Your task to perform on an android device: What's the weather going to be tomorrow? Image 0: 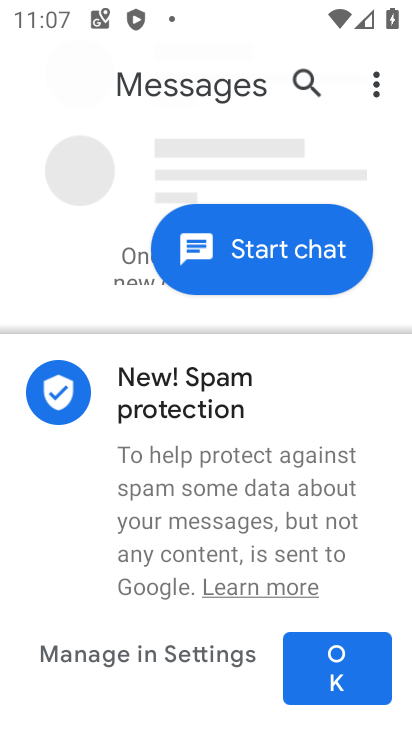
Step 0: press home button
Your task to perform on an android device: What's the weather going to be tomorrow? Image 1: 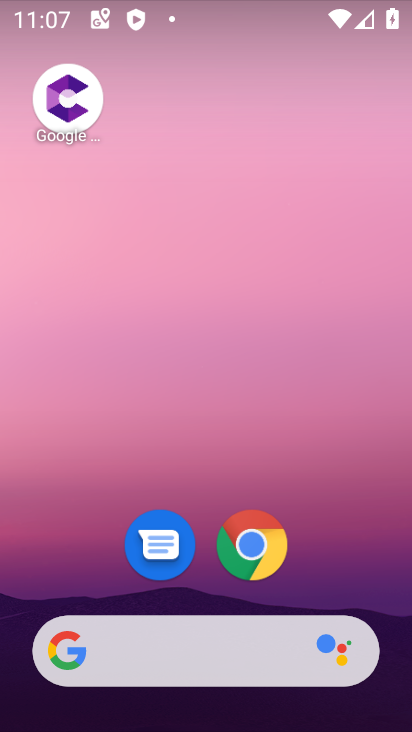
Step 1: drag from (262, 250) to (249, 162)
Your task to perform on an android device: What's the weather going to be tomorrow? Image 2: 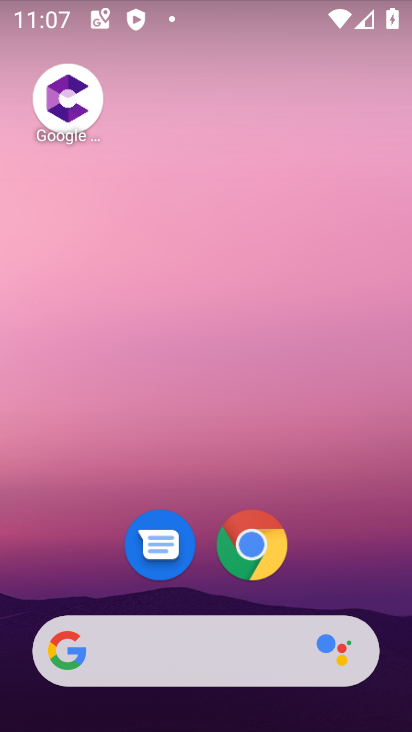
Step 2: click (264, 11)
Your task to perform on an android device: What's the weather going to be tomorrow? Image 3: 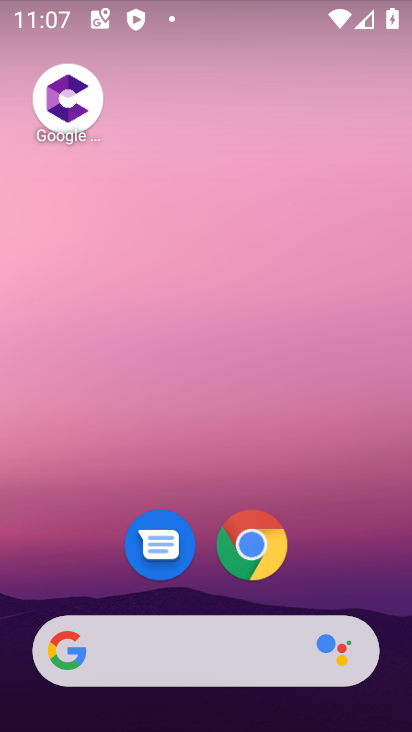
Step 3: drag from (325, 561) to (286, 232)
Your task to perform on an android device: What's the weather going to be tomorrow? Image 4: 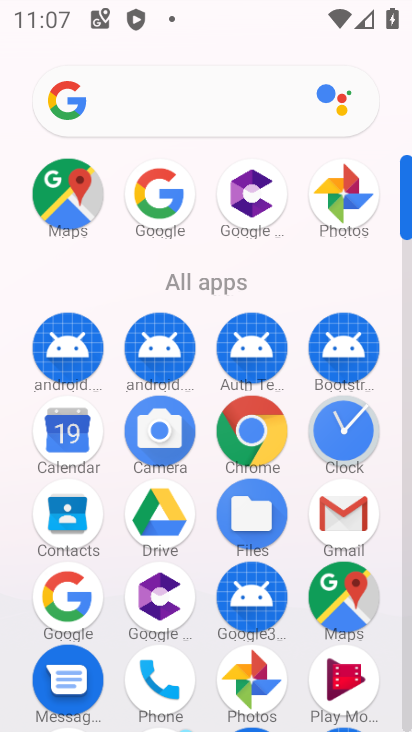
Step 4: click (64, 210)
Your task to perform on an android device: What's the weather going to be tomorrow? Image 5: 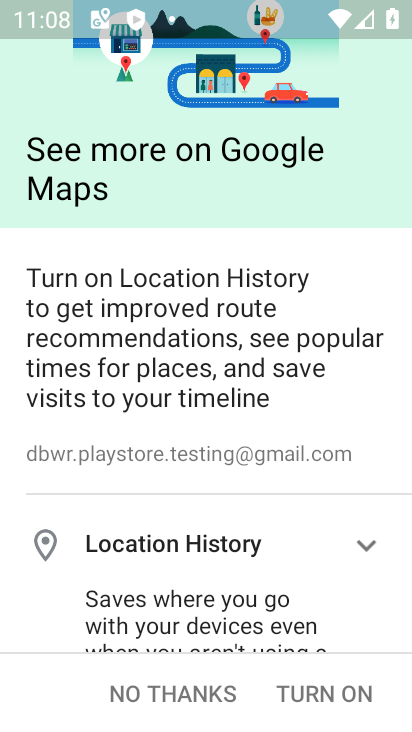
Step 5: click (202, 694)
Your task to perform on an android device: What's the weather going to be tomorrow? Image 6: 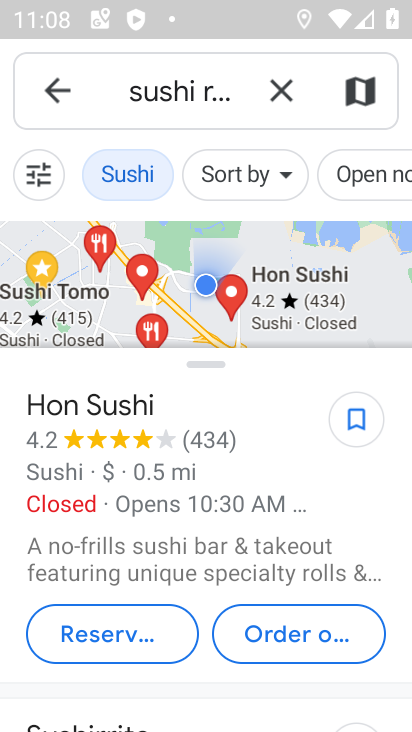
Step 6: press home button
Your task to perform on an android device: What's the weather going to be tomorrow? Image 7: 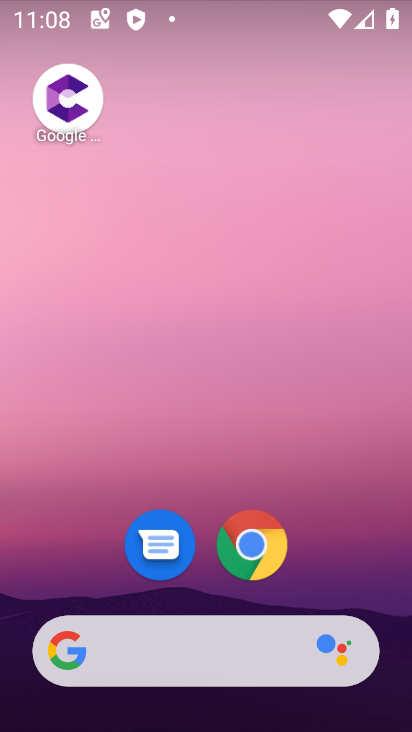
Step 7: drag from (281, 350) to (171, 48)
Your task to perform on an android device: What's the weather going to be tomorrow? Image 8: 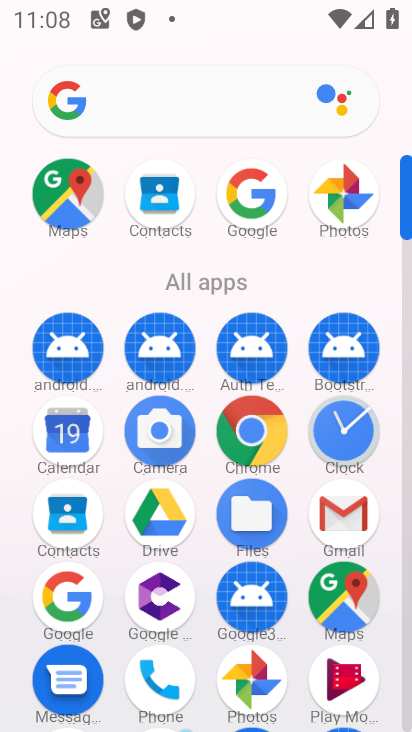
Step 8: click (249, 210)
Your task to perform on an android device: What's the weather going to be tomorrow? Image 9: 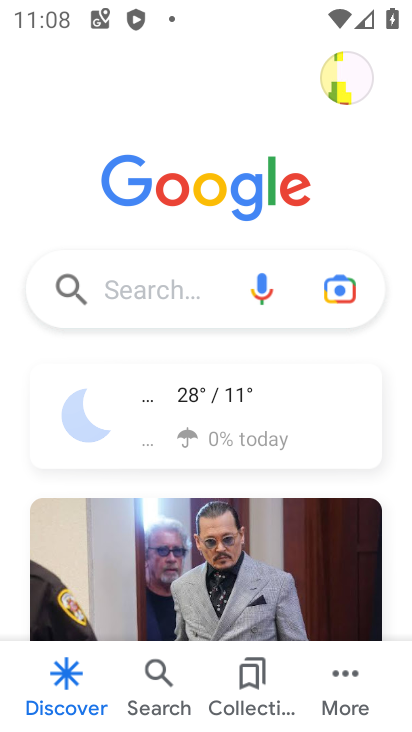
Step 9: click (166, 299)
Your task to perform on an android device: What's the weather going to be tomorrow? Image 10: 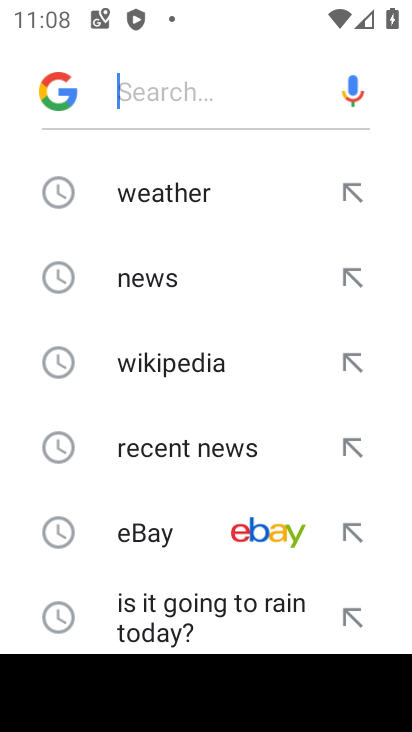
Step 10: click (177, 195)
Your task to perform on an android device: What's the weather going to be tomorrow? Image 11: 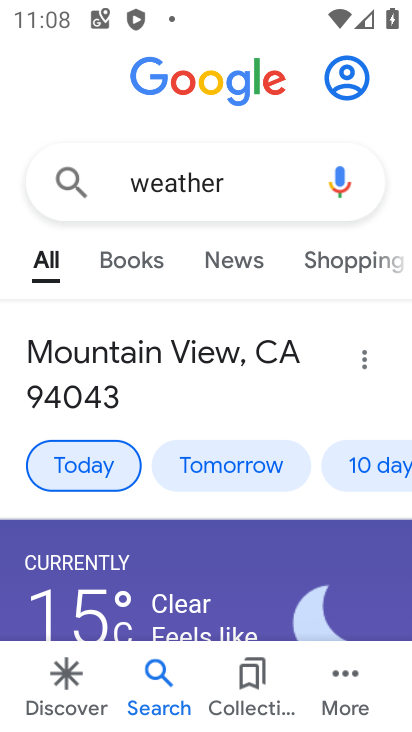
Step 11: click (211, 469)
Your task to perform on an android device: What's the weather going to be tomorrow? Image 12: 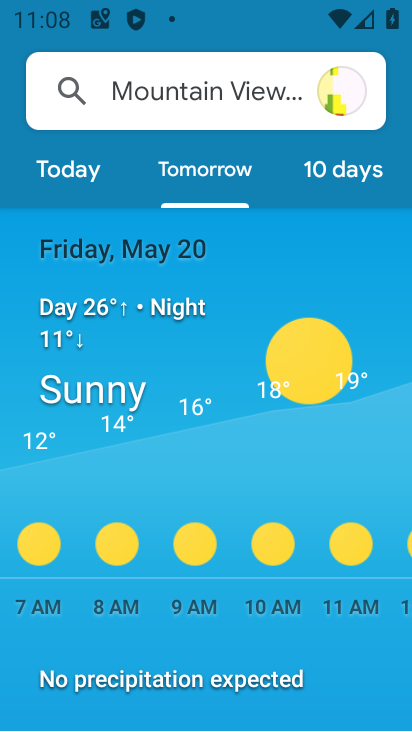
Step 12: task complete